Your task to perform on an android device: Go to Android settings Image 0: 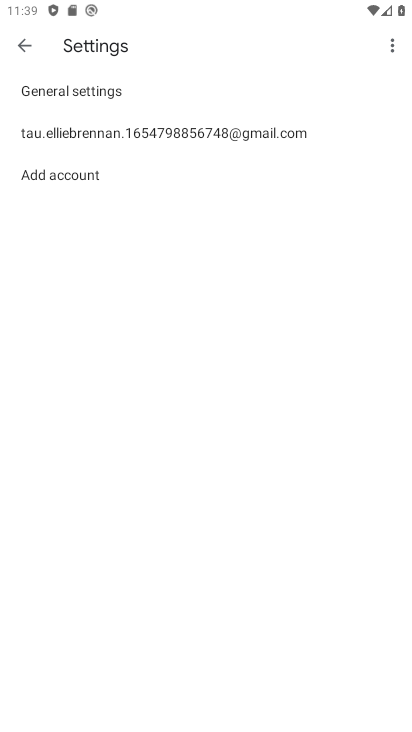
Step 0: press home button
Your task to perform on an android device: Go to Android settings Image 1: 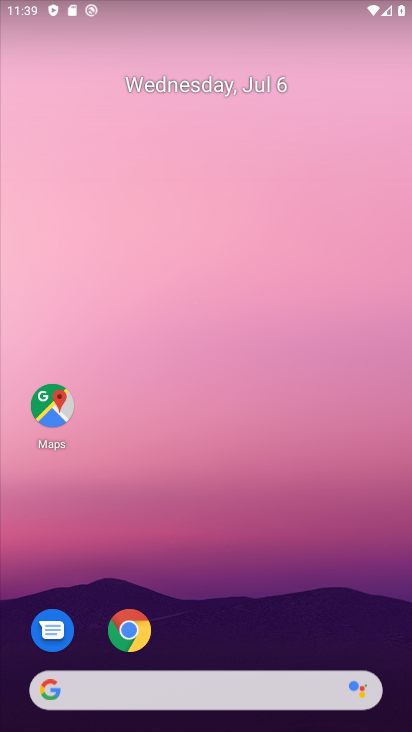
Step 1: drag from (199, 606) to (254, 17)
Your task to perform on an android device: Go to Android settings Image 2: 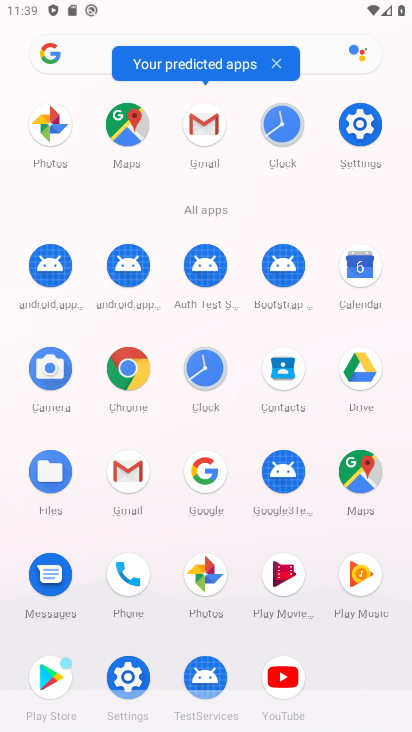
Step 2: click (135, 668)
Your task to perform on an android device: Go to Android settings Image 3: 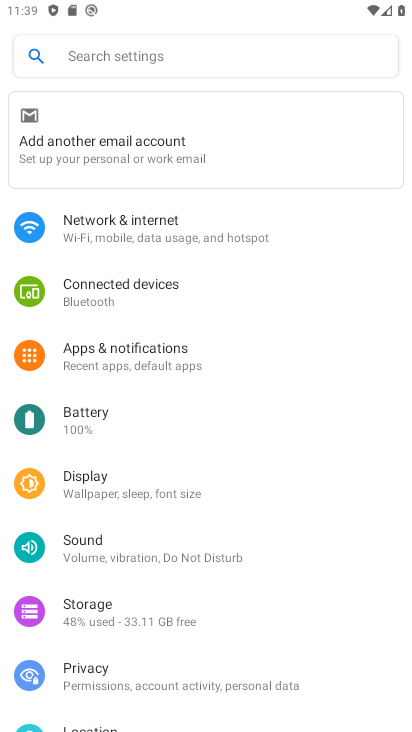
Step 3: drag from (160, 556) to (224, 82)
Your task to perform on an android device: Go to Android settings Image 4: 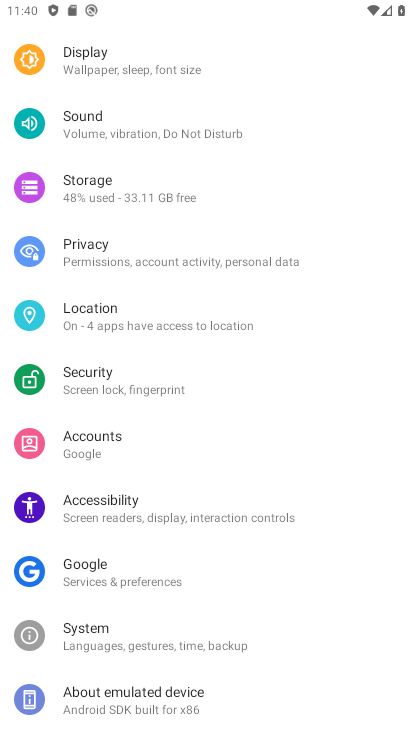
Step 4: drag from (114, 561) to (144, 287)
Your task to perform on an android device: Go to Android settings Image 5: 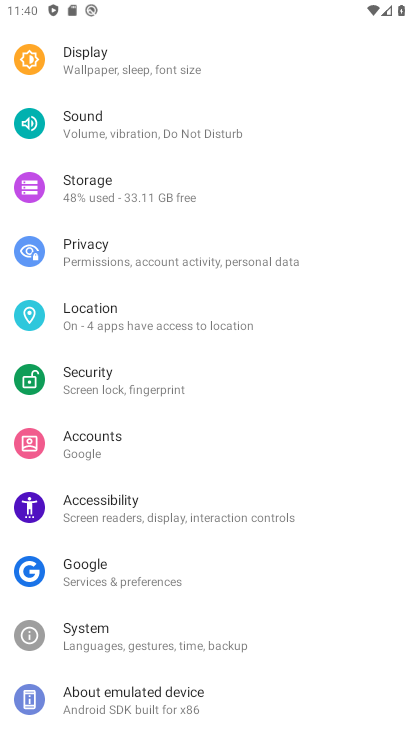
Step 5: click (110, 694)
Your task to perform on an android device: Go to Android settings Image 6: 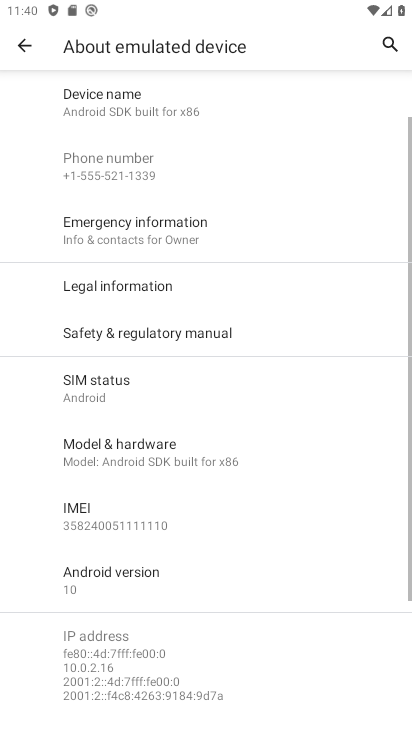
Step 6: click (115, 580)
Your task to perform on an android device: Go to Android settings Image 7: 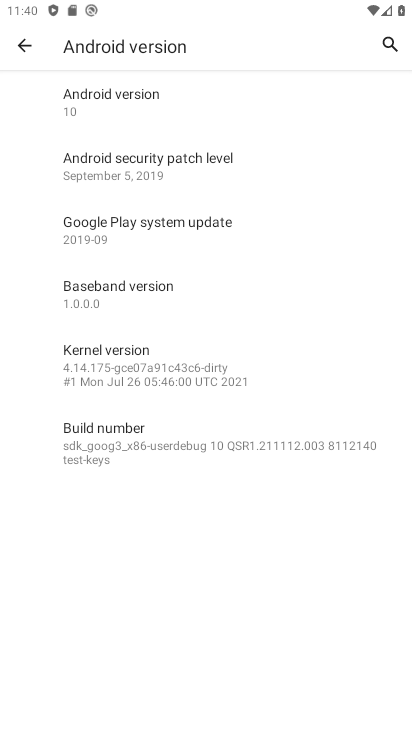
Step 7: task complete